Your task to perform on an android device: Search for Mexican restaurants on Maps Image 0: 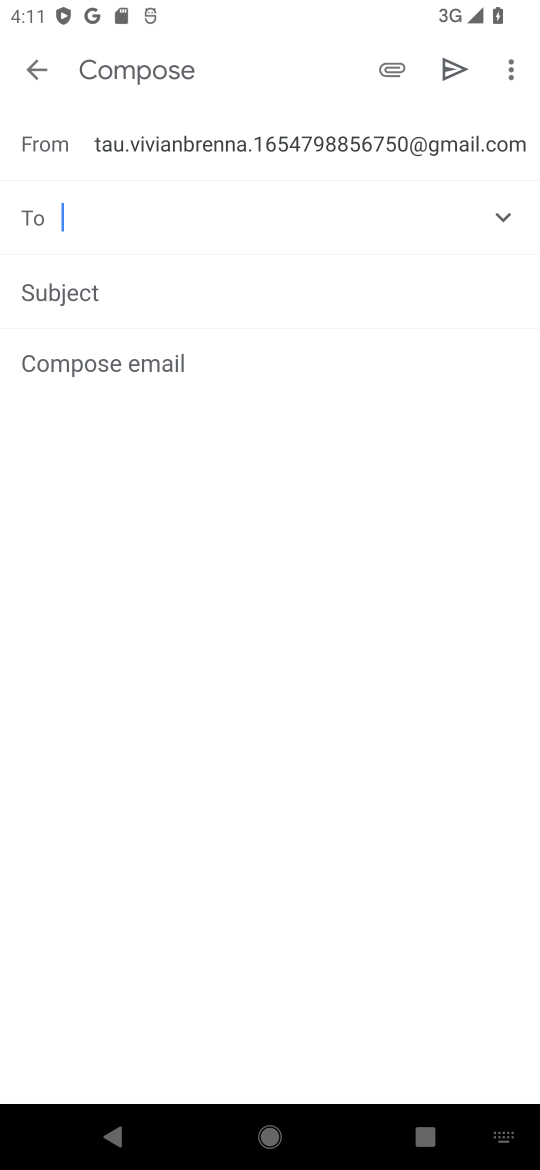
Step 0: press back button
Your task to perform on an android device: Search for Mexican restaurants on Maps Image 1: 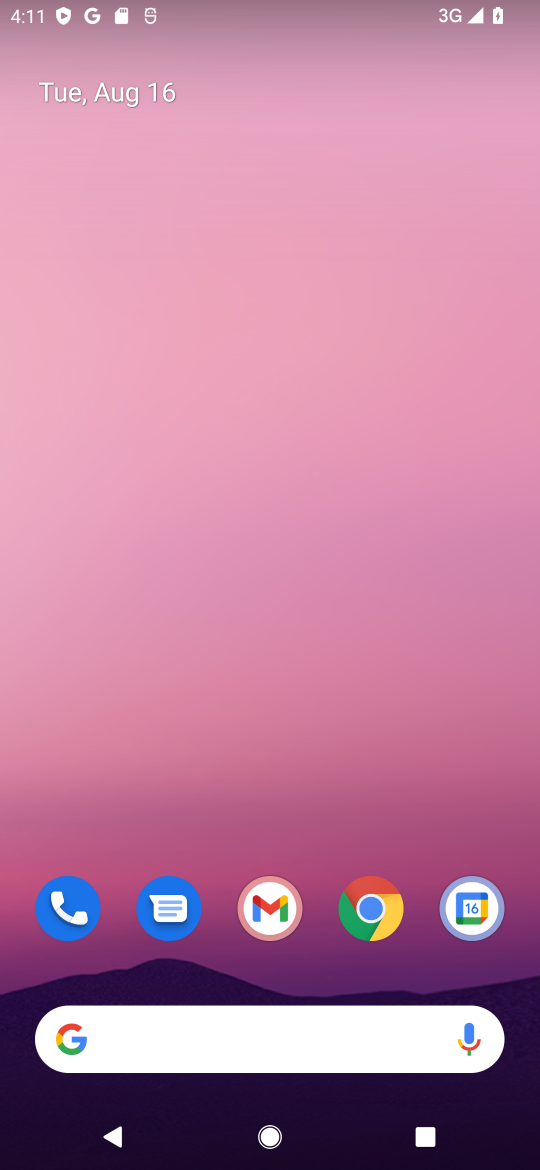
Step 1: drag from (218, 1007) to (360, 20)
Your task to perform on an android device: Search for Mexican restaurants on Maps Image 2: 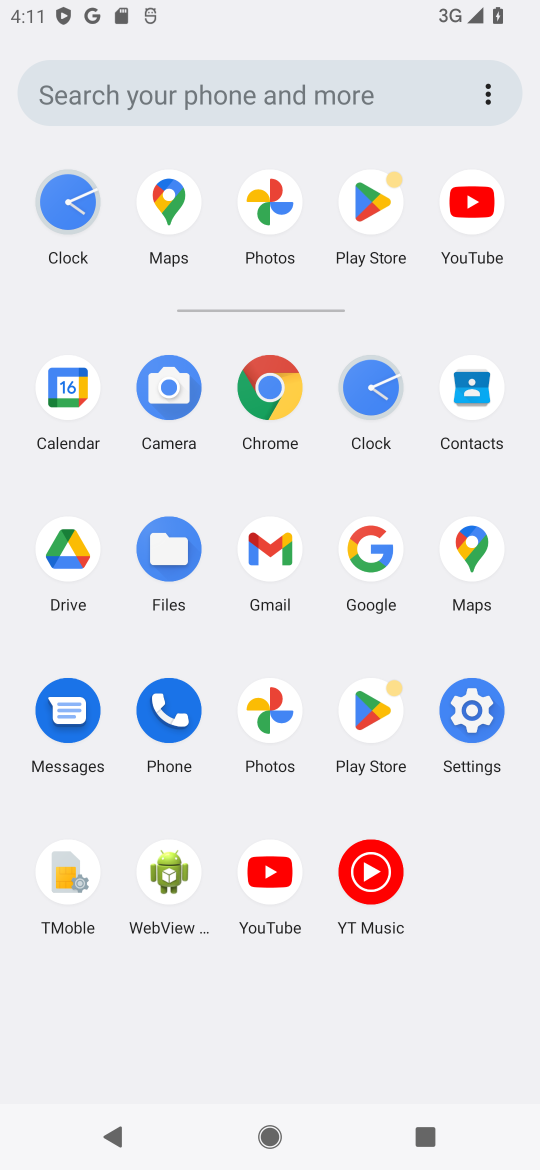
Step 2: click (476, 538)
Your task to perform on an android device: Search for Mexican restaurants on Maps Image 3: 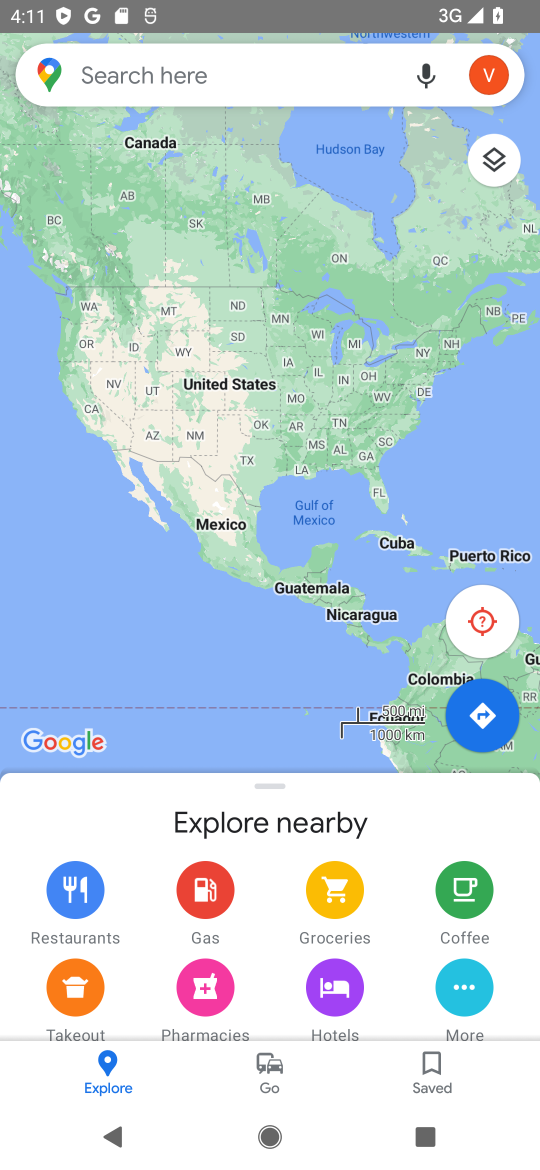
Step 3: click (178, 82)
Your task to perform on an android device: Search for Mexican restaurants on Maps Image 4: 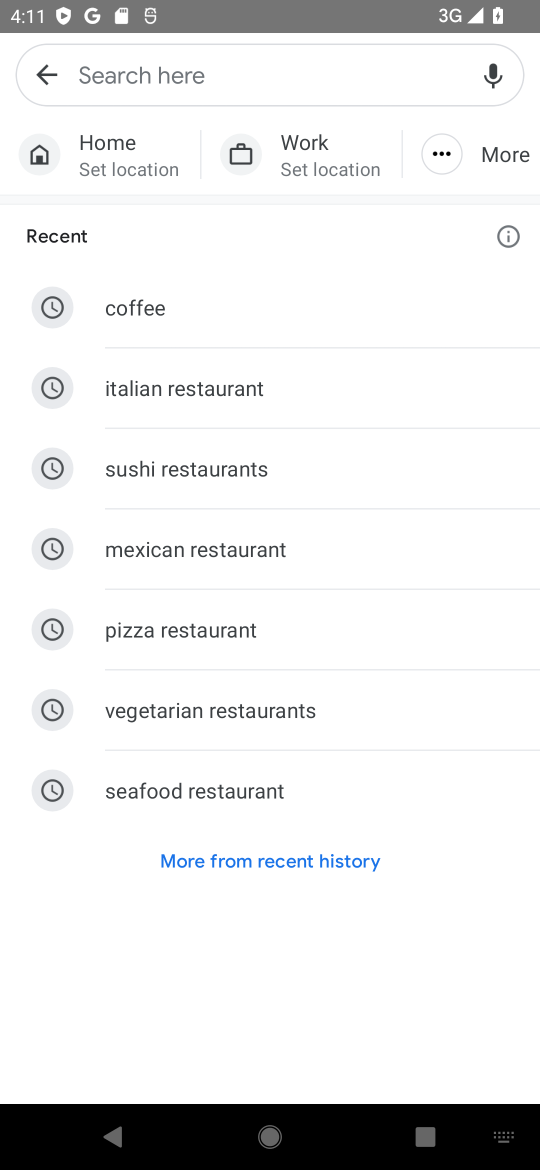
Step 4: click (152, 537)
Your task to perform on an android device: Search for Mexican restaurants on Maps Image 5: 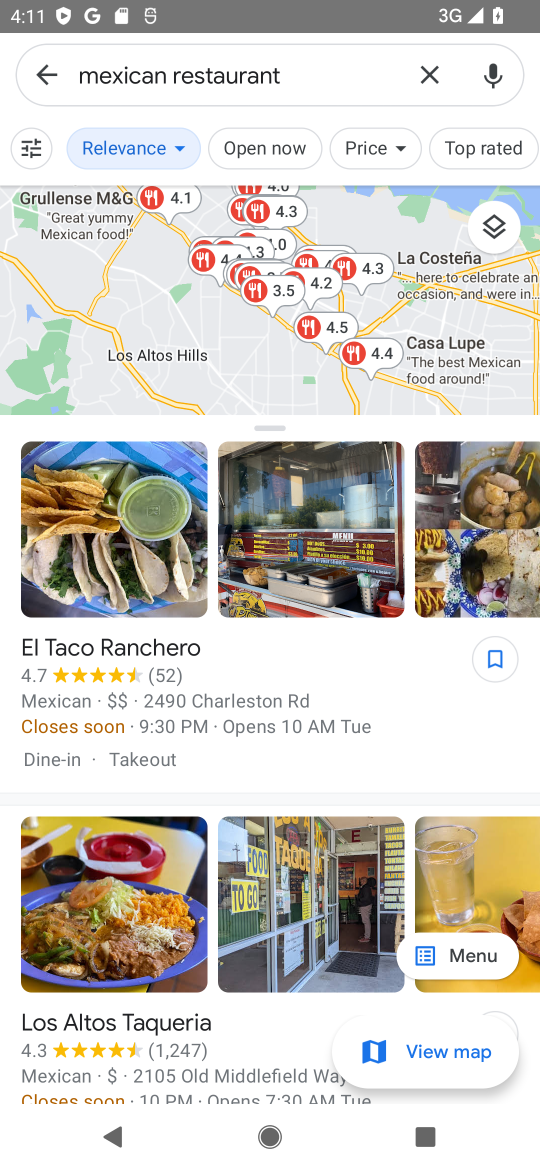
Step 5: task complete